Your task to perform on an android device: Open Google Maps Image 0: 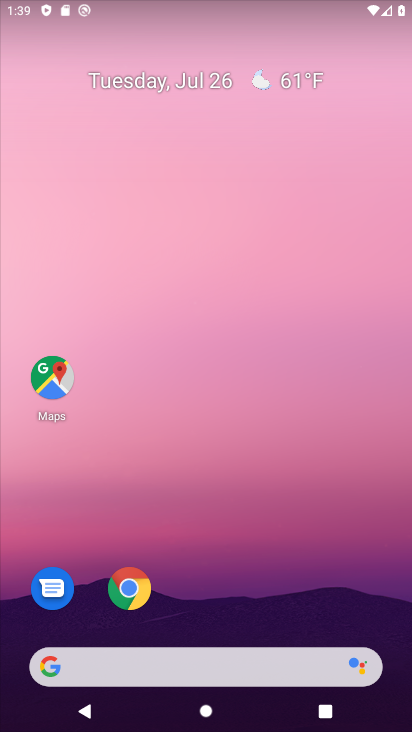
Step 0: drag from (289, 532) to (301, 157)
Your task to perform on an android device: Open Google Maps Image 1: 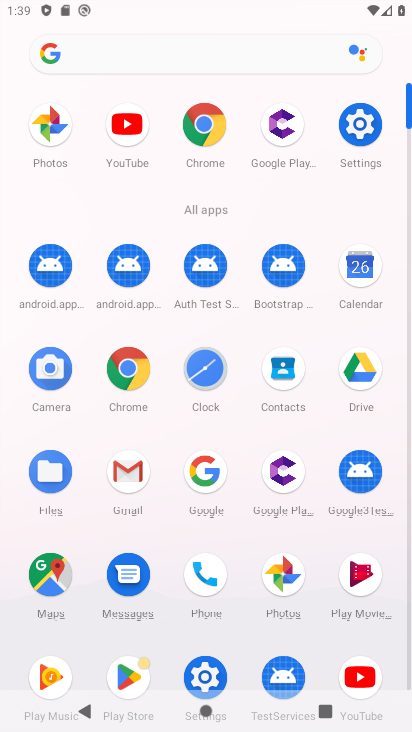
Step 1: click (35, 594)
Your task to perform on an android device: Open Google Maps Image 2: 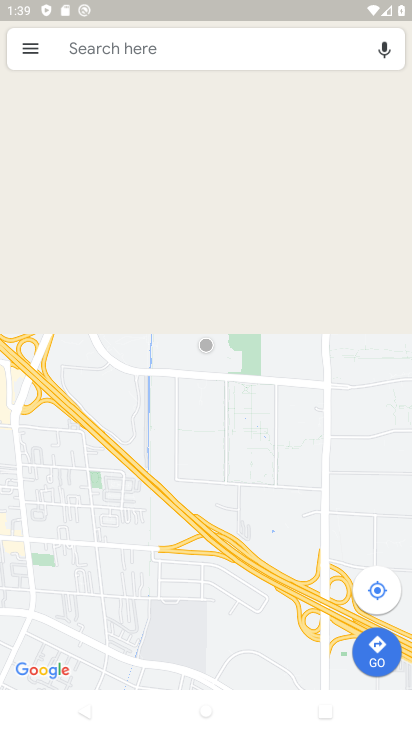
Step 2: task complete